Your task to perform on an android device: turn off data saver in the chrome app Image 0: 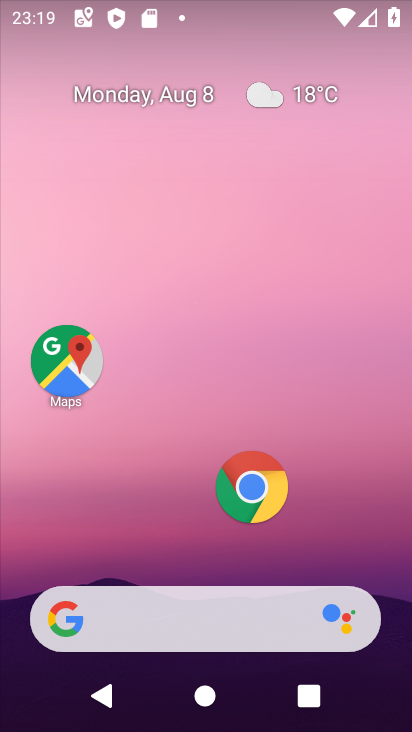
Step 0: click (256, 500)
Your task to perform on an android device: turn off data saver in the chrome app Image 1: 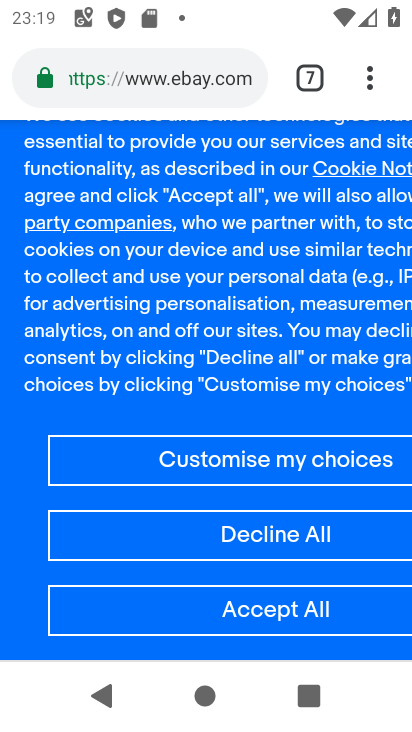
Step 1: drag from (367, 84) to (232, 543)
Your task to perform on an android device: turn off data saver in the chrome app Image 2: 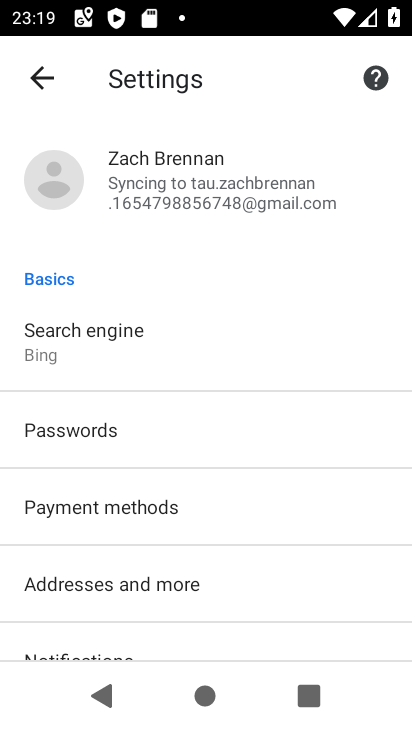
Step 2: drag from (99, 606) to (101, 291)
Your task to perform on an android device: turn off data saver in the chrome app Image 3: 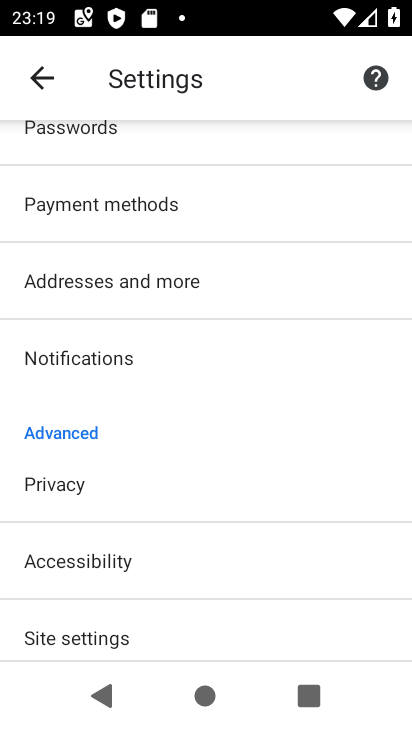
Step 3: drag from (95, 621) to (112, 289)
Your task to perform on an android device: turn off data saver in the chrome app Image 4: 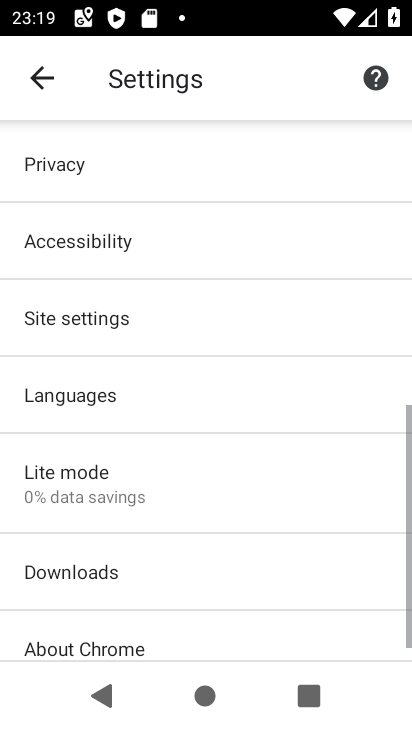
Step 4: click (78, 493)
Your task to perform on an android device: turn off data saver in the chrome app Image 5: 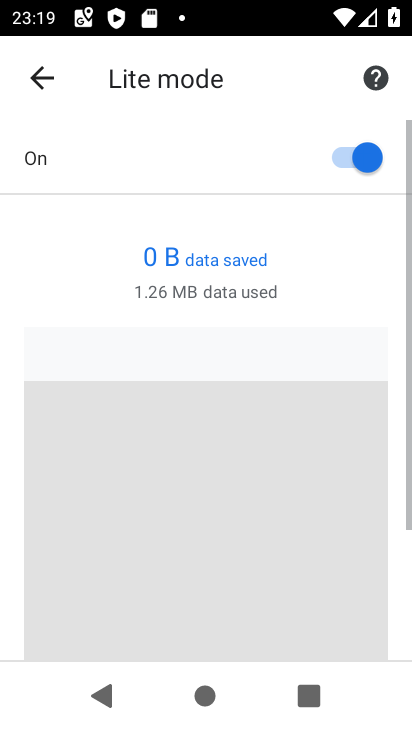
Step 5: click (340, 150)
Your task to perform on an android device: turn off data saver in the chrome app Image 6: 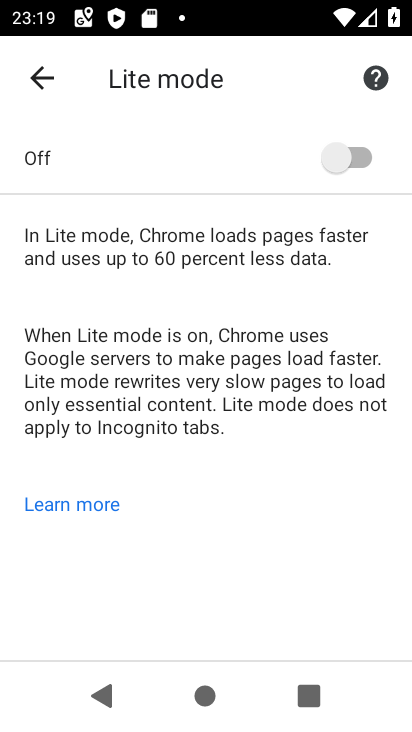
Step 6: task complete